Your task to perform on an android device: turn off notifications settings in the gmail app Image 0: 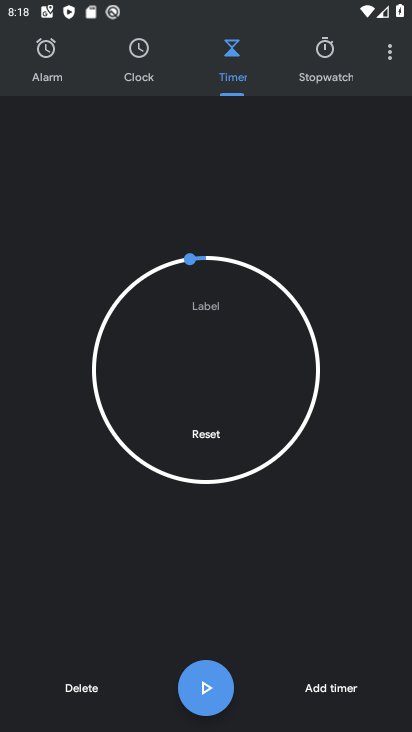
Step 0: press home button
Your task to perform on an android device: turn off notifications settings in the gmail app Image 1: 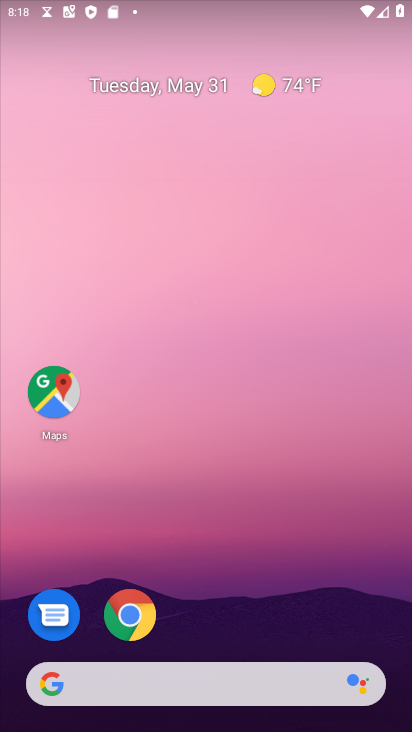
Step 1: drag from (204, 579) to (334, 176)
Your task to perform on an android device: turn off notifications settings in the gmail app Image 2: 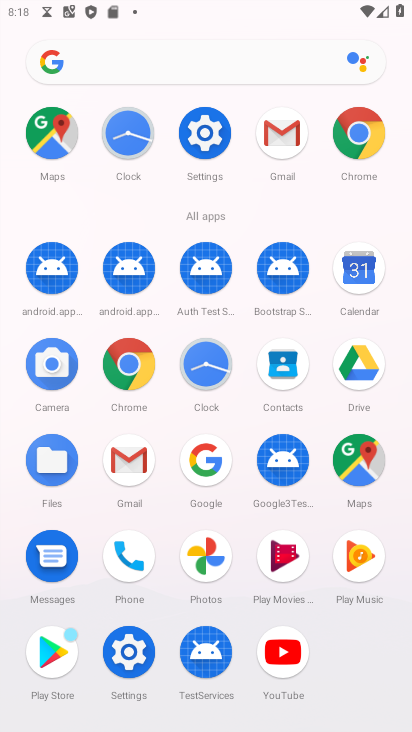
Step 2: click (288, 138)
Your task to perform on an android device: turn off notifications settings in the gmail app Image 3: 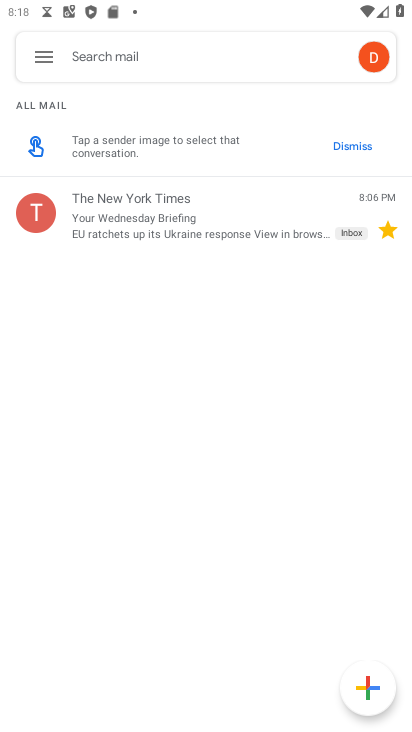
Step 3: click (48, 58)
Your task to perform on an android device: turn off notifications settings in the gmail app Image 4: 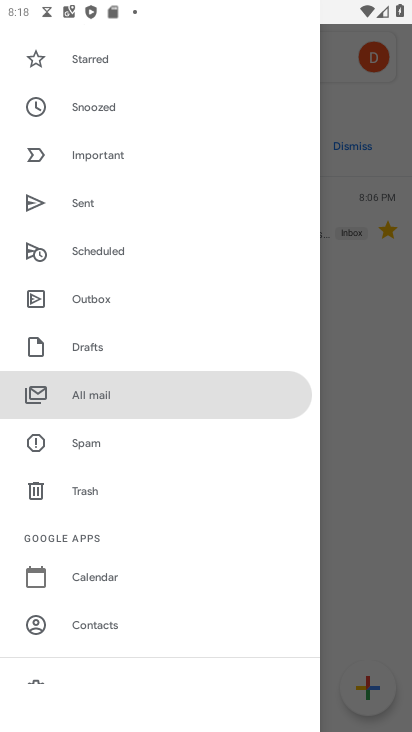
Step 4: drag from (218, 616) to (301, 137)
Your task to perform on an android device: turn off notifications settings in the gmail app Image 5: 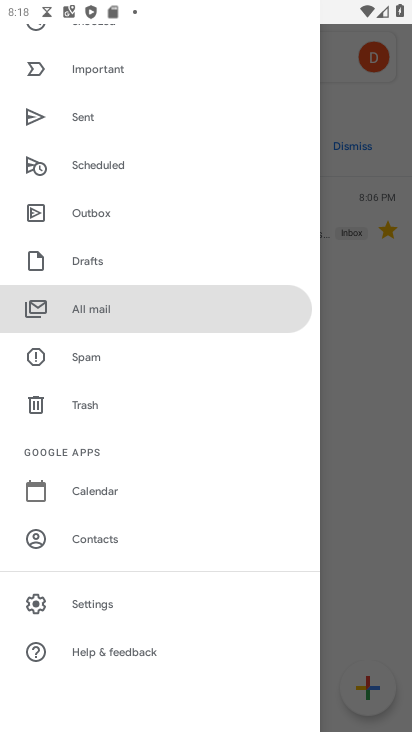
Step 5: click (97, 603)
Your task to perform on an android device: turn off notifications settings in the gmail app Image 6: 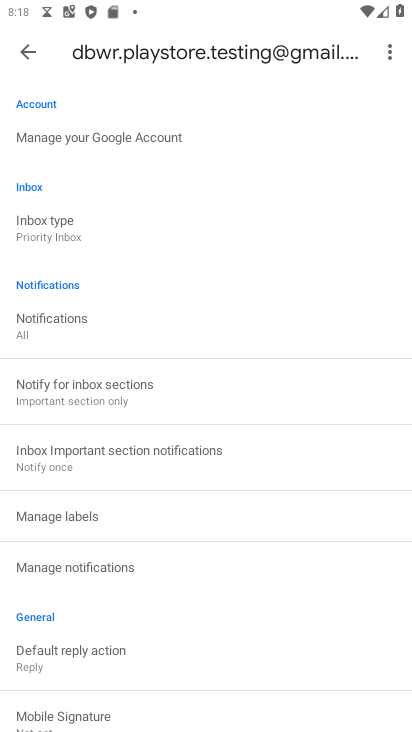
Step 6: click (34, 334)
Your task to perform on an android device: turn off notifications settings in the gmail app Image 7: 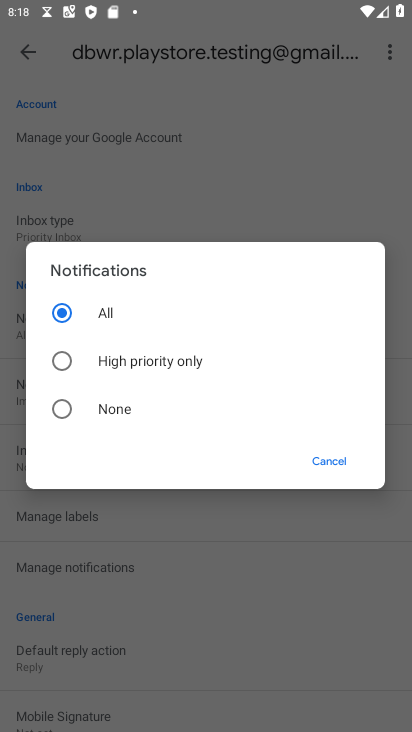
Step 7: click (64, 414)
Your task to perform on an android device: turn off notifications settings in the gmail app Image 8: 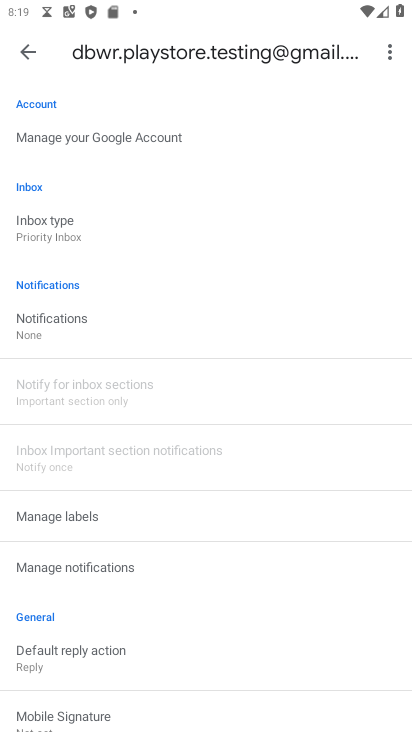
Step 8: task complete